Your task to perform on an android device: move an email to a new category in the gmail app Image 0: 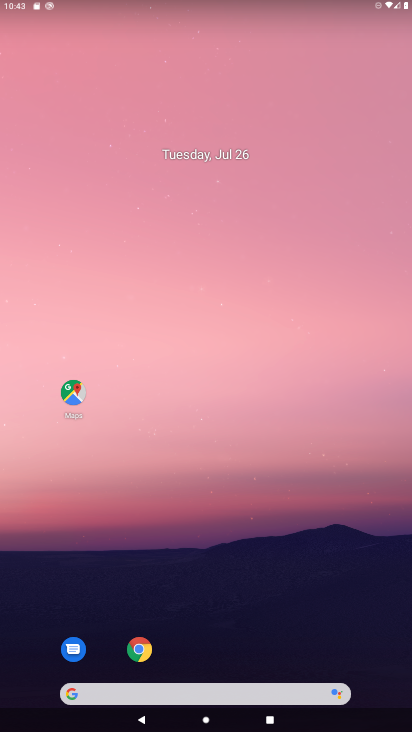
Step 0: drag from (245, 683) to (242, 314)
Your task to perform on an android device: move an email to a new category in the gmail app Image 1: 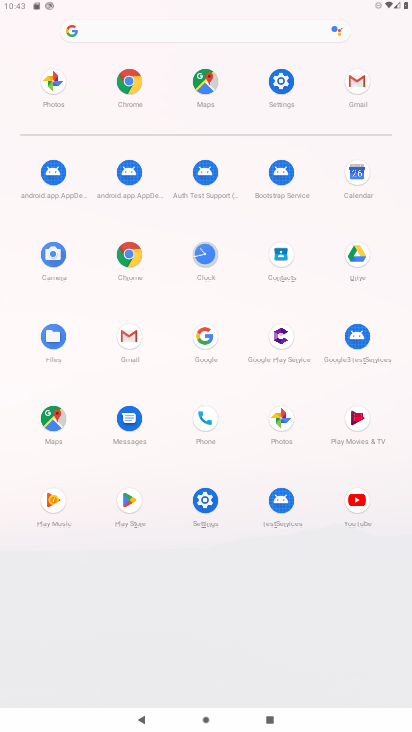
Step 1: click (356, 80)
Your task to perform on an android device: move an email to a new category in the gmail app Image 2: 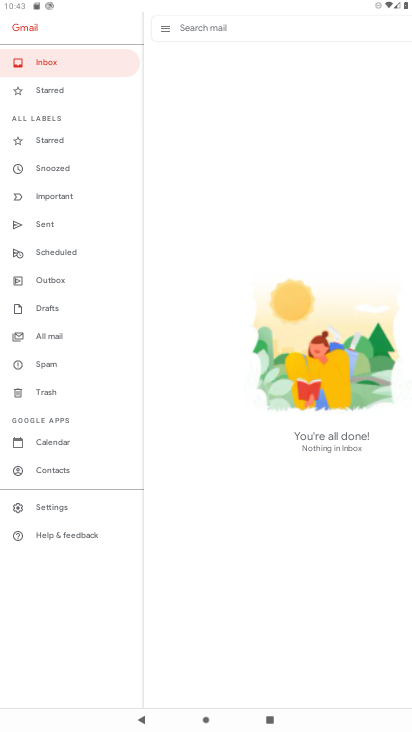
Step 2: task complete